Your task to perform on an android device: Search for Mexican restaurants on Maps Image 0: 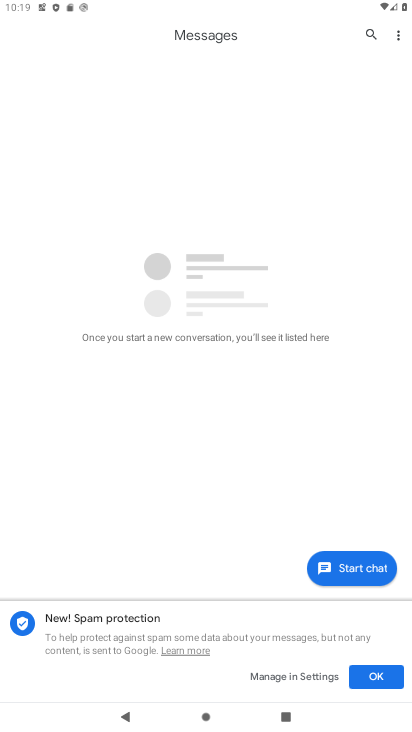
Step 0: press home button
Your task to perform on an android device: Search for Mexican restaurants on Maps Image 1: 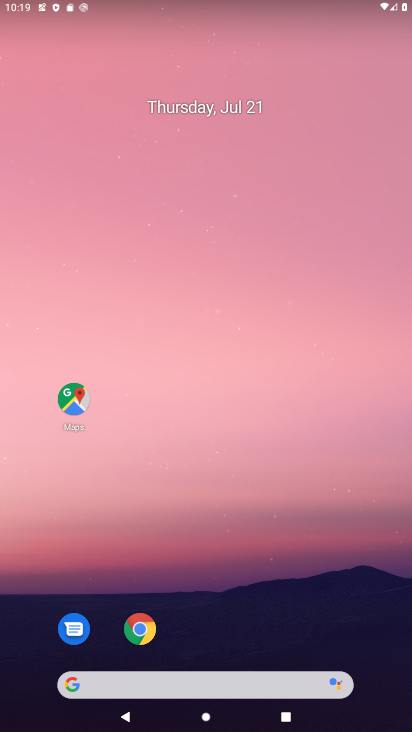
Step 1: click (70, 388)
Your task to perform on an android device: Search for Mexican restaurants on Maps Image 2: 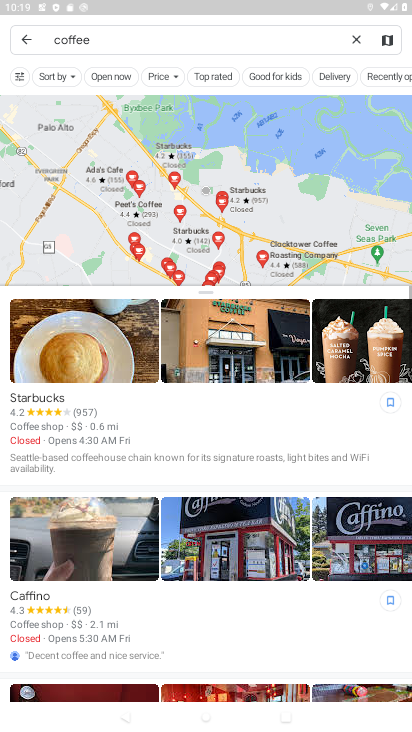
Step 2: click (6, 38)
Your task to perform on an android device: Search for Mexican restaurants on Maps Image 3: 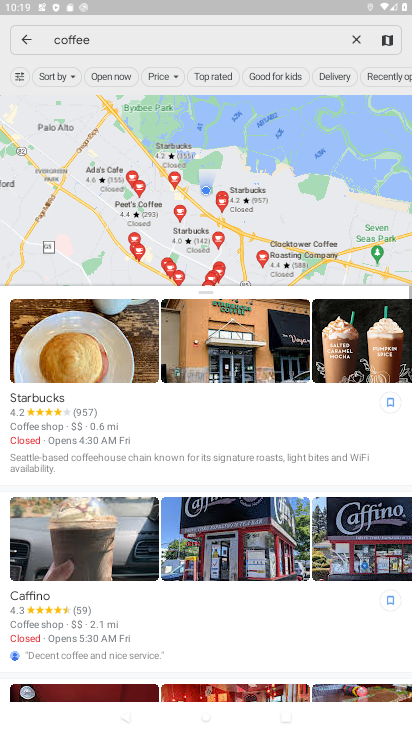
Step 3: click (27, 40)
Your task to perform on an android device: Search for Mexican restaurants on Maps Image 4: 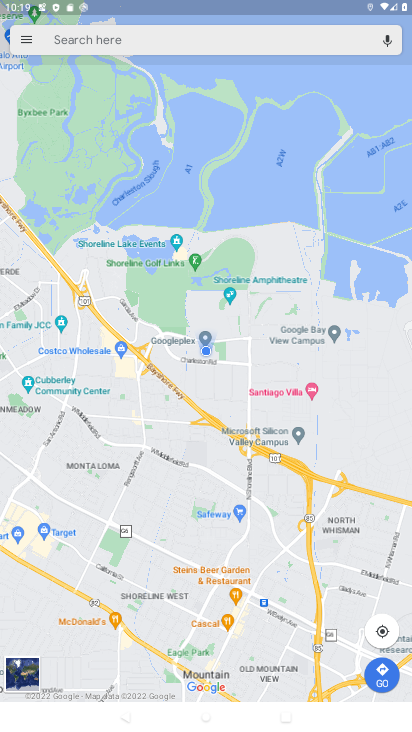
Step 4: type "Mexican restaurants"
Your task to perform on an android device: Search for Mexican restaurants on Maps Image 5: 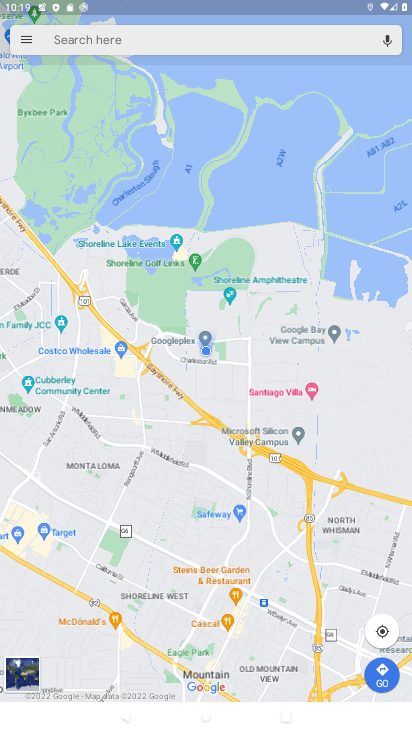
Step 5: click (133, 31)
Your task to perform on an android device: Search for Mexican restaurants on Maps Image 6: 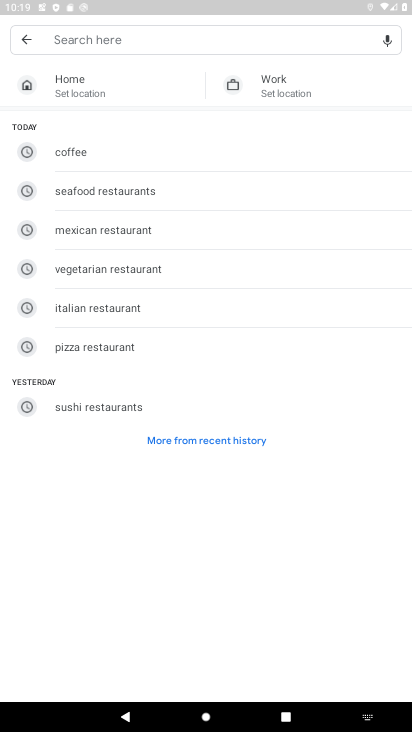
Step 6: click (122, 37)
Your task to perform on an android device: Search for Mexican restaurants on Maps Image 7: 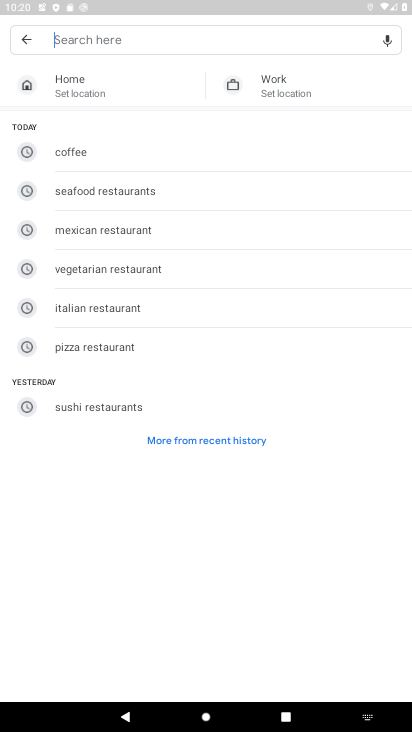
Step 7: click (83, 233)
Your task to perform on an android device: Search for Mexican restaurants on Maps Image 8: 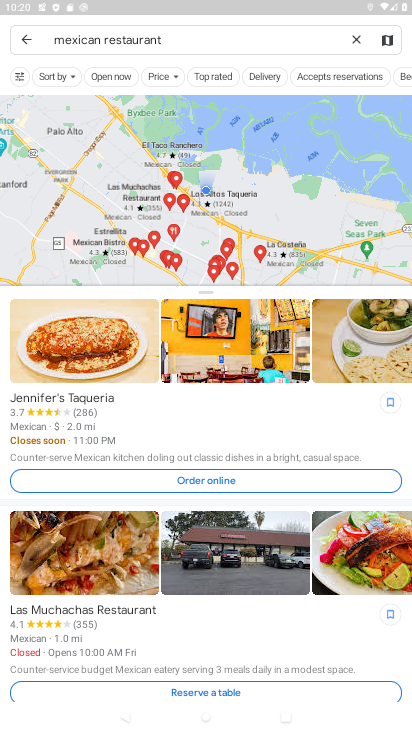
Step 8: task complete